Your task to perform on an android device: Open Android settings Image 0: 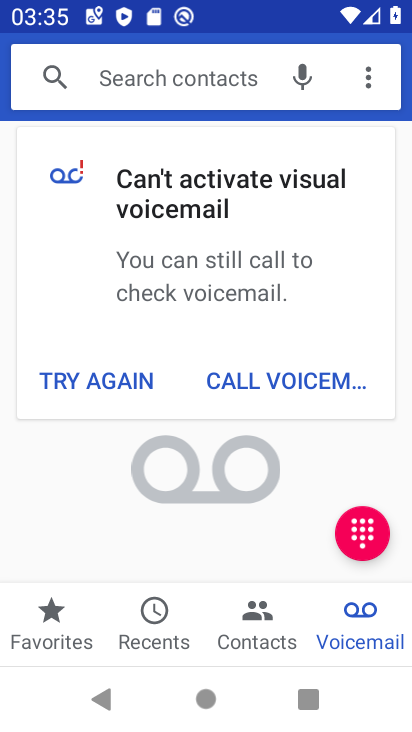
Step 0: press home button
Your task to perform on an android device: Open Android settings Image 1: 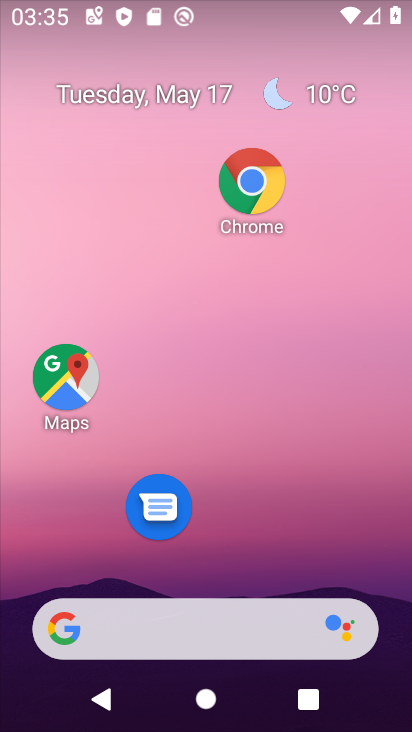
Step 1: drag from (221, 575) to (168, 87)
Your task to perform on an android device: Open Android settings Image 2: 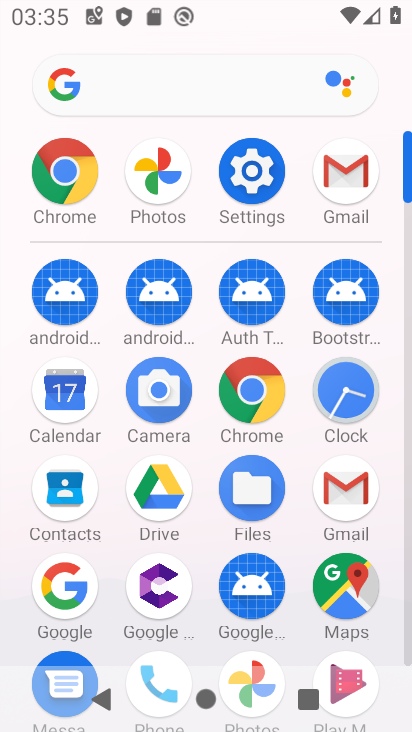
Step 2: click (264, 170)
Your task to perform on an android device: Open Android settings Image 3: 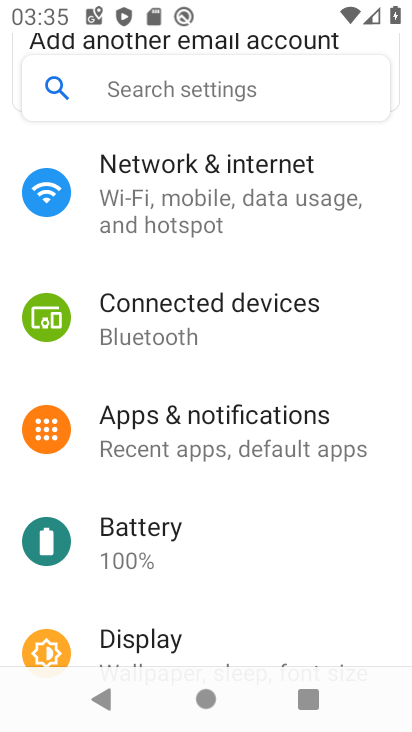
Step 3: task complete